Your task to perform on an android device: turn off location history Image 0: 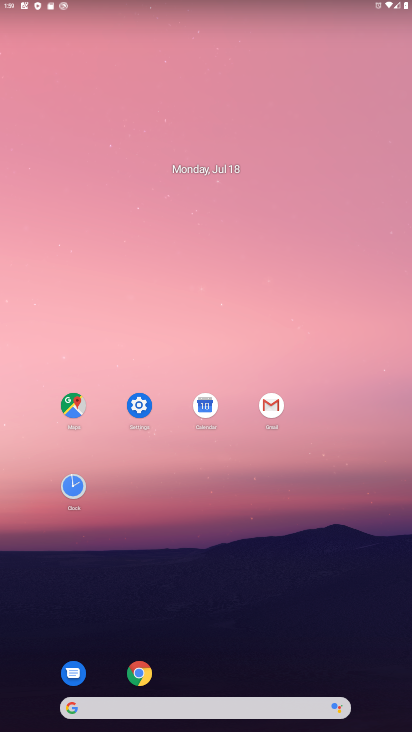
Step 0: drag from (403, 663) to (399, 54)
Your task to perform on an android device: turn off location history Image 1: 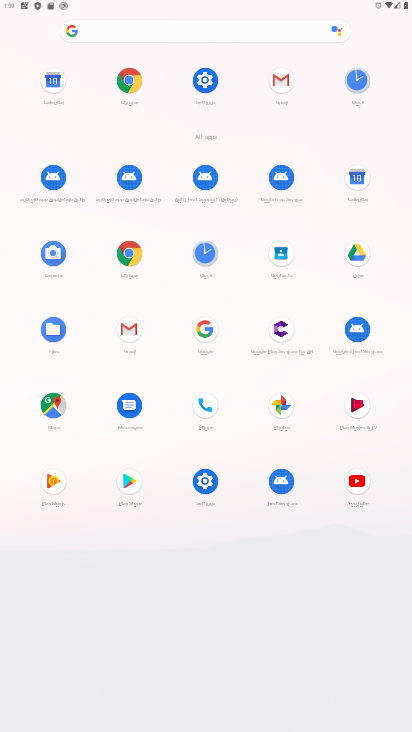
Step 1: click (204, 481)
Your task to perform on an android device: turn off location history Image 2: 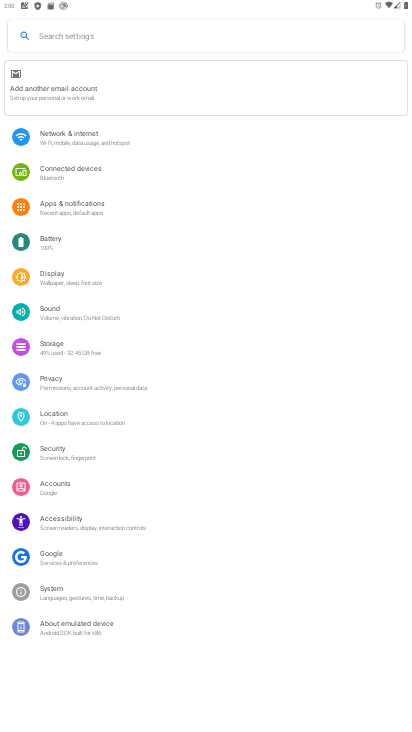
Step 2: click (72, 415)
Your task to perform on an android device: turn off location history Image 3: 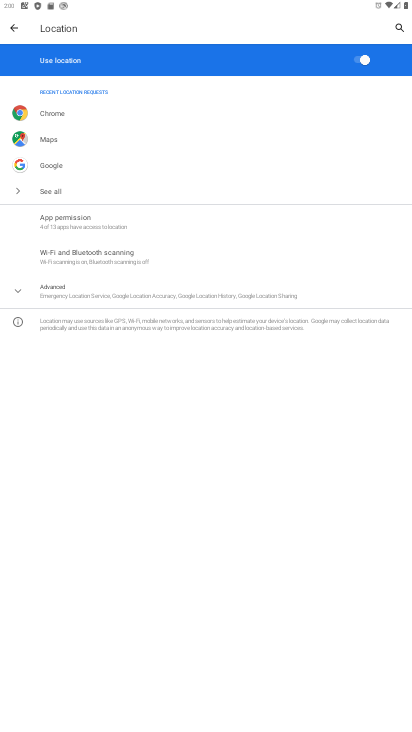
Step 3: click (357, 62)
Your task to perform on an android device: turn off location history Image 4: 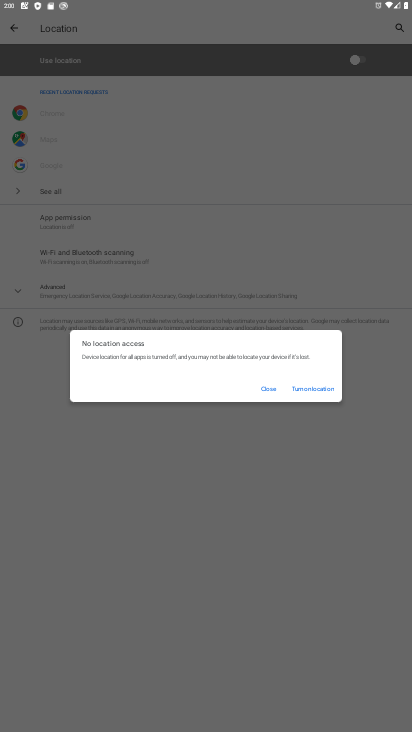
Step 4: task complete